Your task to perform on an android device: Open privacy settings Image 0: 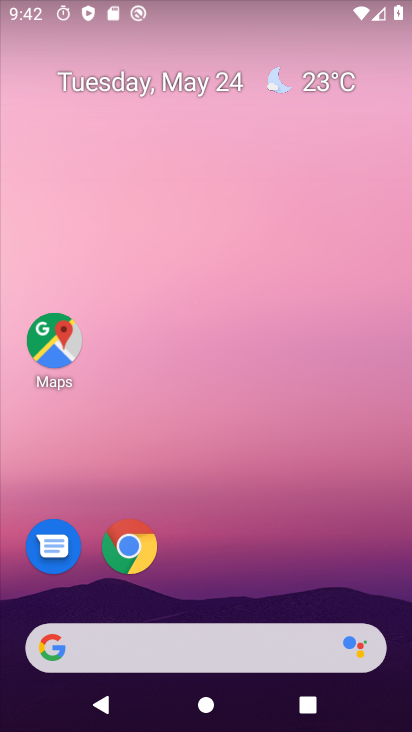
Step 0: drag from (256, 564) to (239, 36)
Your task to perform on an android device: Open privacy settings Image 1: 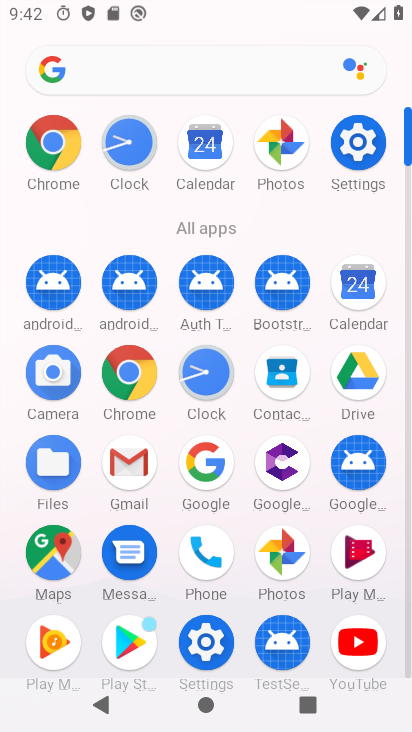
Step 1: click (359, 148)
Your task to perform on an android device: Open privacy settings Image 2: 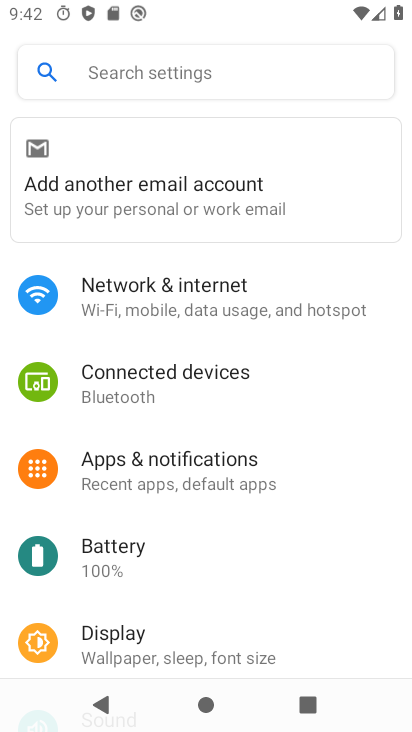
Step 2: drag from (293, 560) to (291, 192)
Your task to perform on an android device: Open privacy settings Image 3: 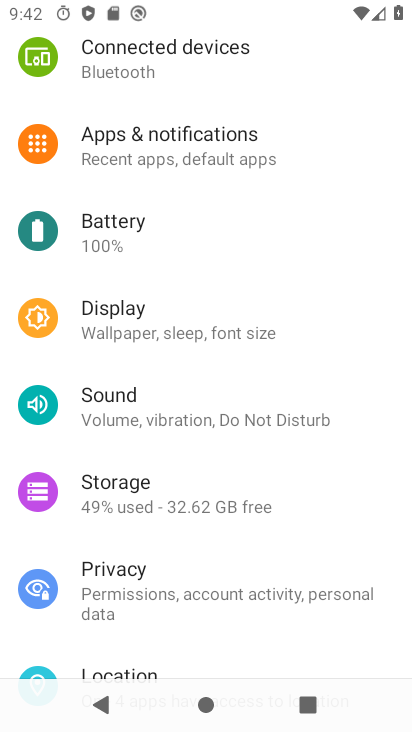
Step 3: click (124, 573)
Your task to perform on an android device: Open privacy settings Image 4: 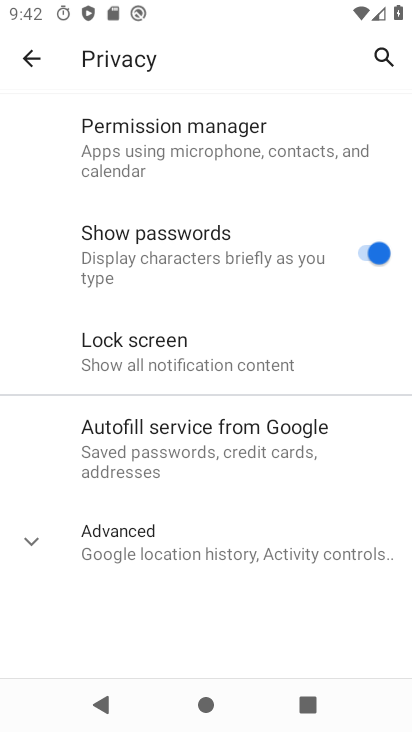
Step 4: task complete